Your task to perform on an android device: Search for Italian restaurants on Maps Image 0: 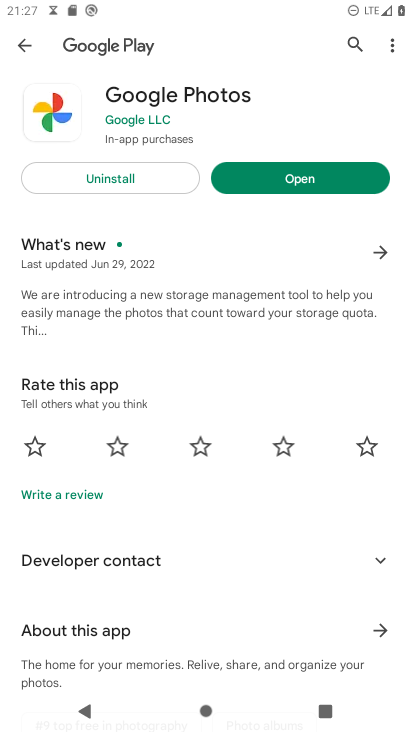
Step 0: press home button
Your task to perform on an android device: Search for Italian restaurants on Maps Image 1: 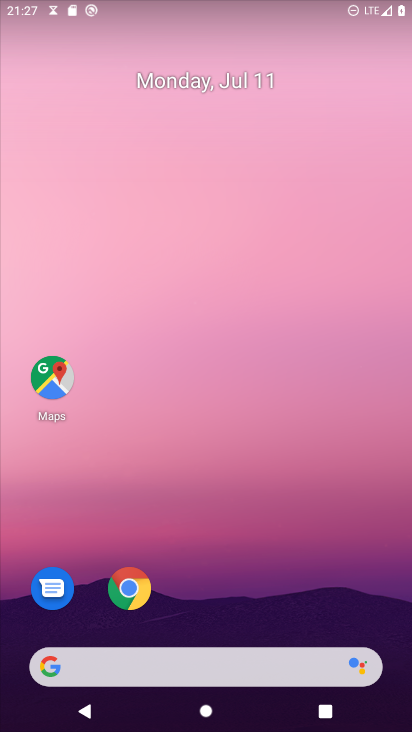
Step 1: drag from (227, 620) to (271, 4)
Your task to perform on an android device: Search for Italian restaurants on Maps Image 2: 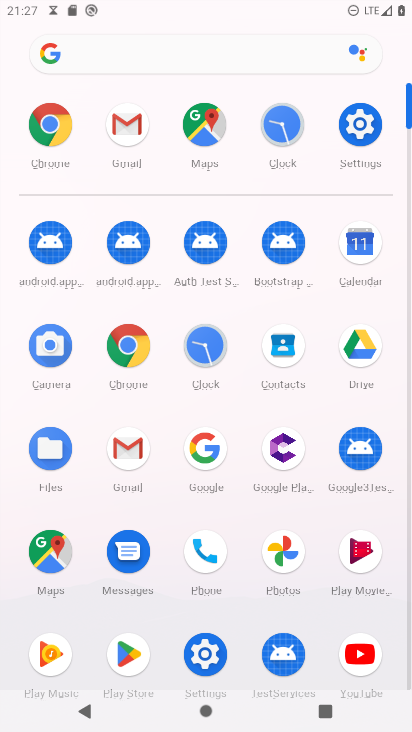
Step 2: click (43, 541)
Your task to perform on an android device: Search for Italian restaurants on Maps Image 3: 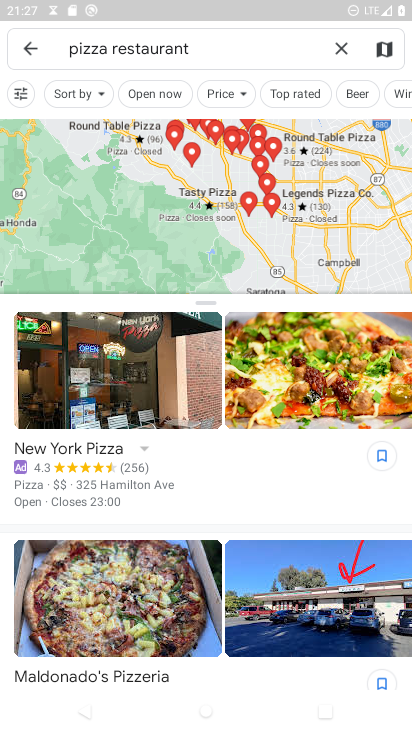
Step 3: press back button
Your task to perform on an android device: Search for Italian restaurants on Maps Image 4: 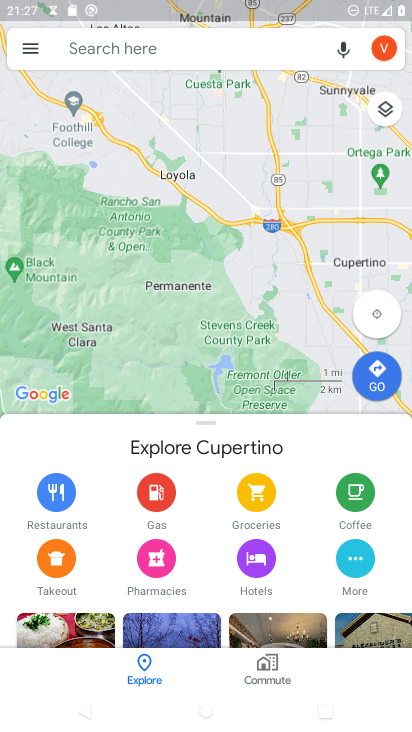
Step 4: click (135, 51)
Your task to perform on an android device: Search for Italian restaurants on Maps Image 5: 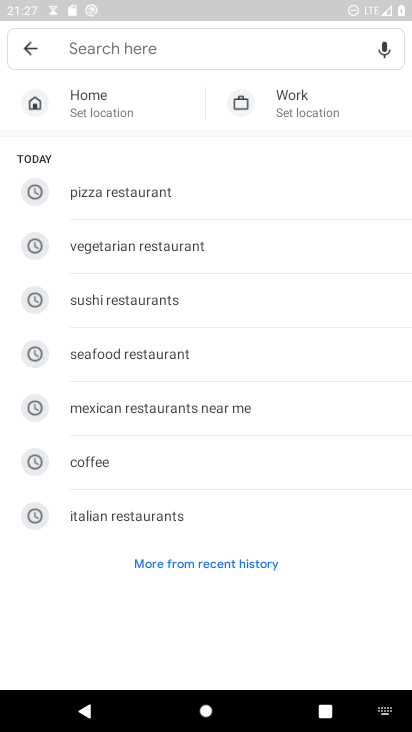
Step 5: click (118, 517)
Your task to perform on an android device: Search for Italian restaurants on Maps Image 6: 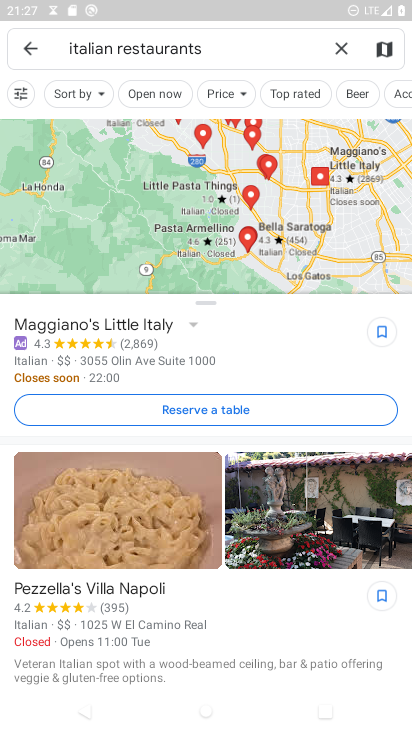
Step 6: task complete